Your task to perform on an android device: set default search engine in the chrome app Image 0: 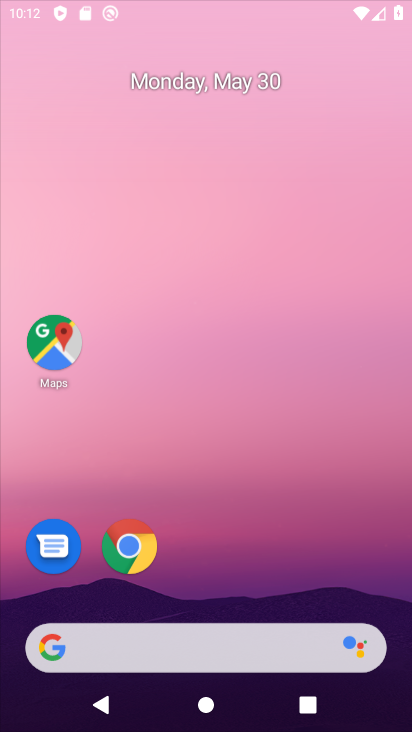
Step 0: press home button
Your task to perform on an android device: set default search engine in the chrome app Image 1: 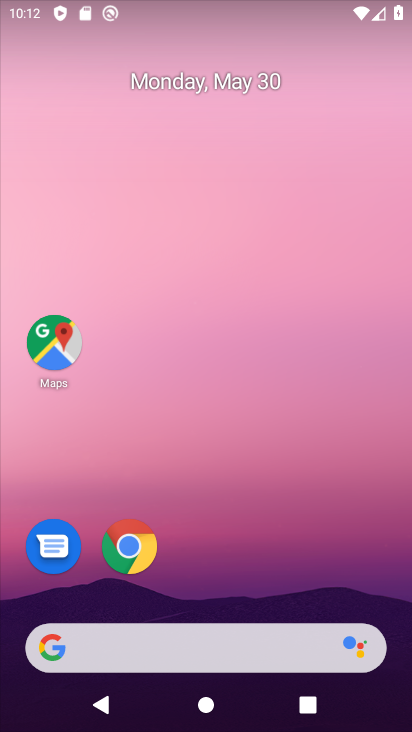
Step 1: drag from (224, 592) to (248, 136)
Your task to perform on an android device: set default search engine in the chrome app Image 2: 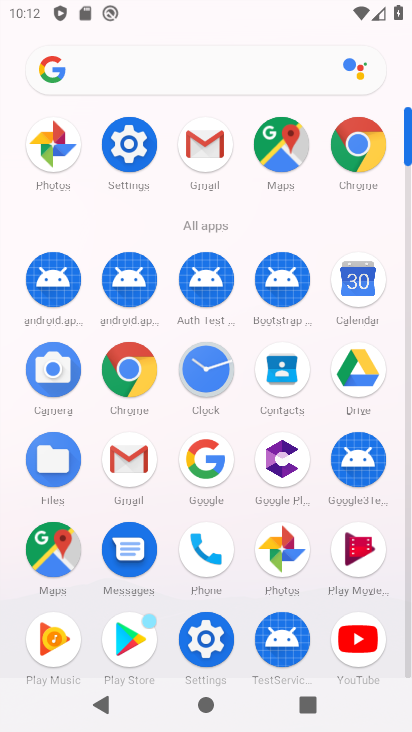
Step 2: click (356, 140)
Your task to perform on an android device: set default search engine in the chrome app Image 3: 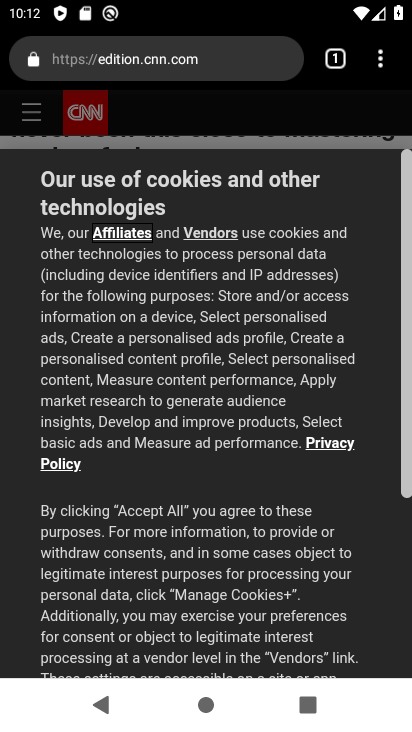
Step 3: drag from (203, 553) to (248, 161)
Your task to perform on an android device: set default search engine in the chrome app Image 4: 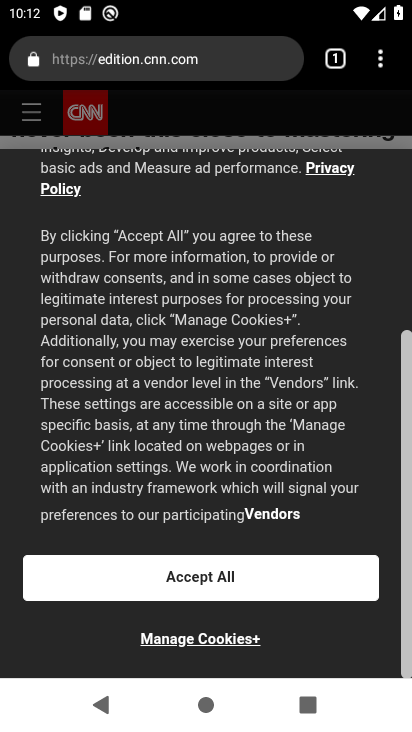
Step 4: drag from (224, 611) to (237, 167)
Your task to perform on an android device: set default search engine in the chrome app Image 5: 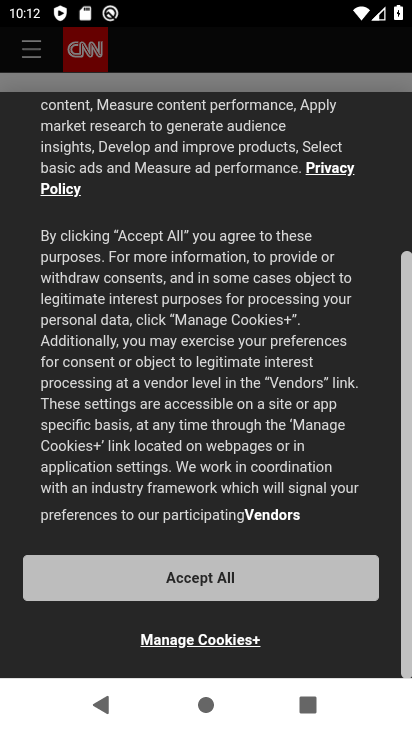
Step 5: click (200, 568)
Your task to perform on an android device: set default search engine in the chrome app Image 6: 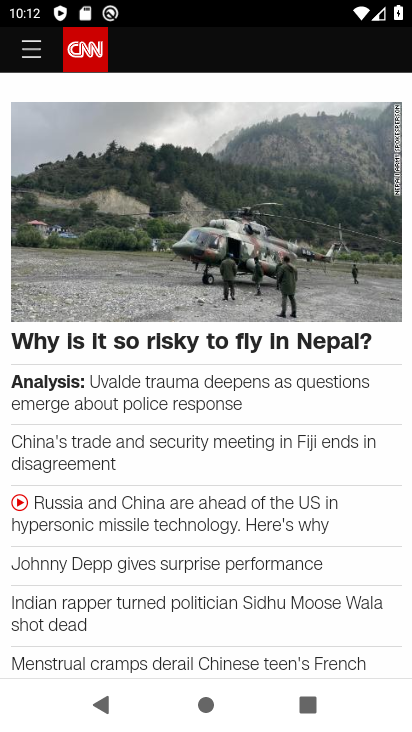
Step 6: drag from (325, 155) to (329, 471)
Your task to perform on an android device: set default search engine in the chrome app Image 7: 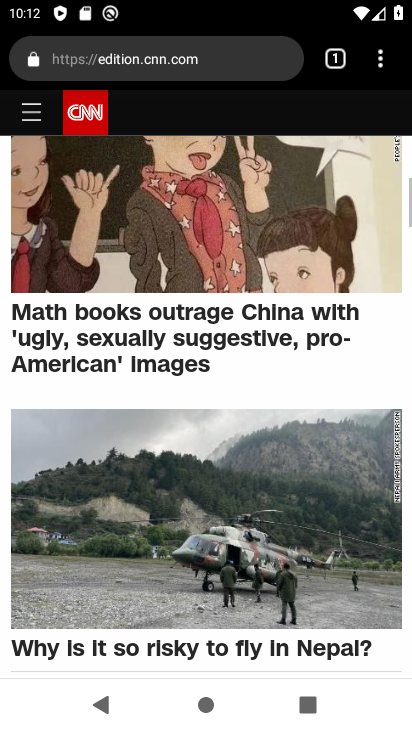
Step 7: click (388, 49)
Your task to perform on an android device: set default search engine in the chrome app Image 8: 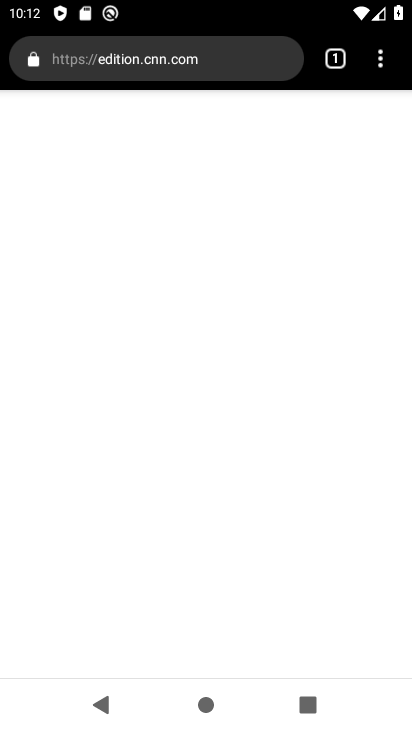
Step 8: click (378, 54)
Your task to perform on an android device: set default search engine in the chrome app Image 9: 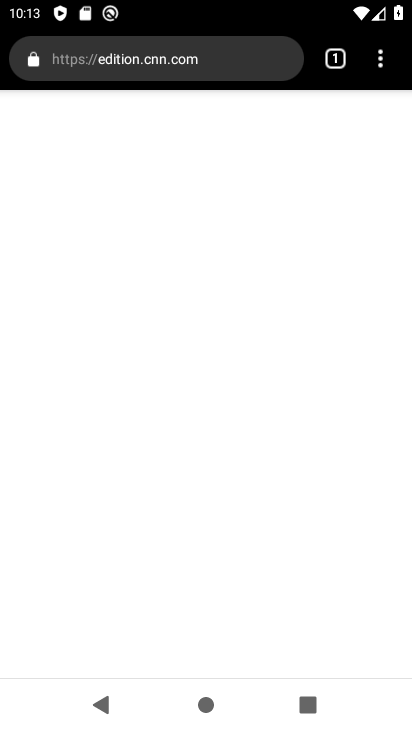
Step 9: click (378, 56)
Your task to perform on an android device: set default search engine in the chrome app Image 10: 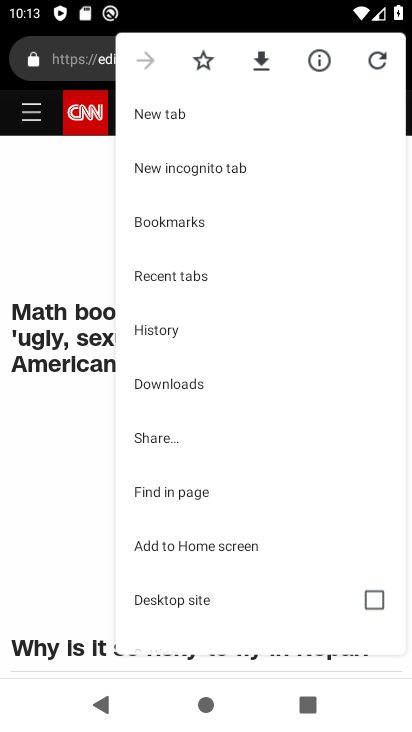
Step 10: drag from (220, 596) to (229, 112)
Your task to perform on an android device: set default search engine in the chrome app Image 11: 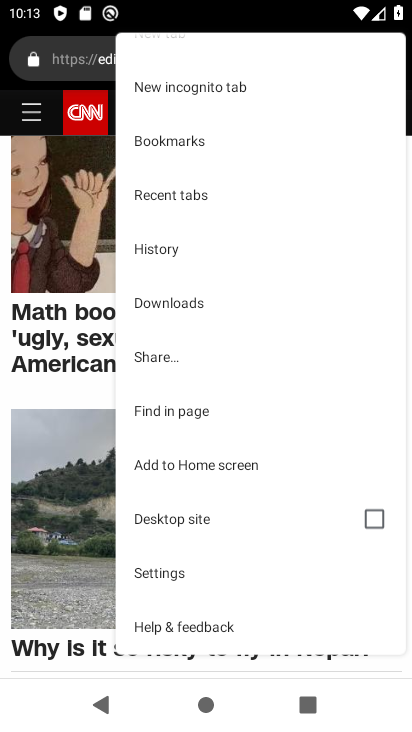
Step 11: click (193, 569)
Your task to perform on an android device: set default search engine in the chrome app Image 12: 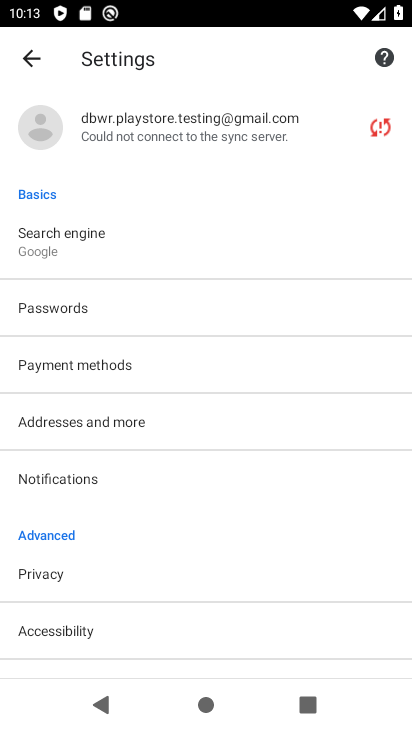
Step 12: click (114, 245)
Your task to perform on an android device: set default search engine in the chrome app Image 13: 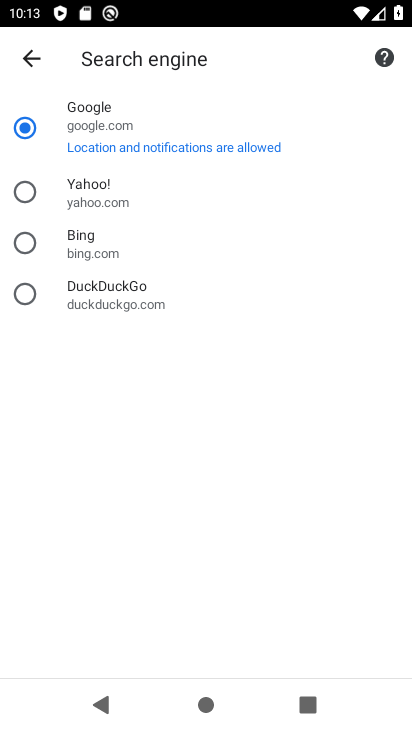
Step 13: click (23, 186)
Your task to perform on an android device: set default search engine in the chrome app Image 14: 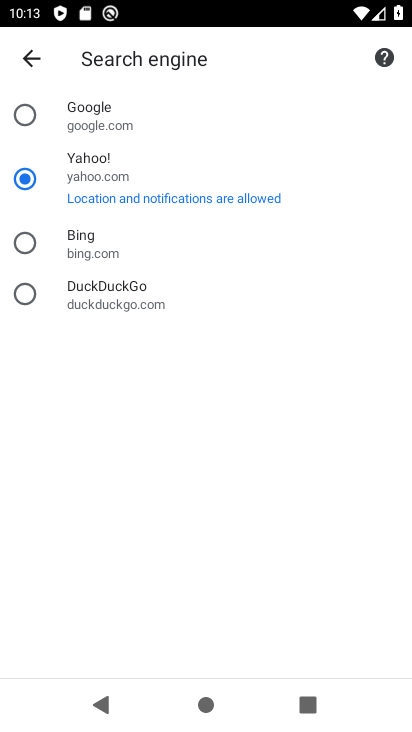
Step 14: task complete